Your task to perform on an android device: Open eBay Image 0: 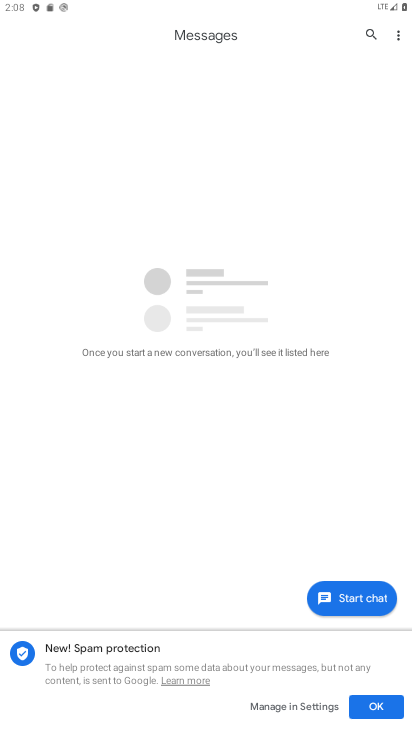
Step 0: press home button
Your task to perform on an android device: Open eBay Image 1: 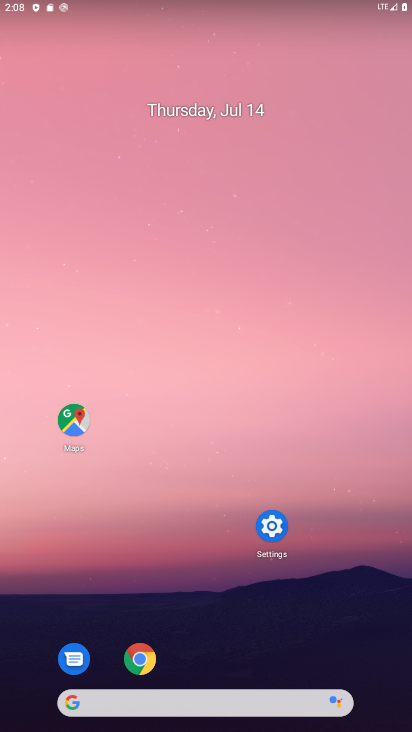
Step 1: click (147, 659)
Your task to perform on an android device: Open eBay Image 2: 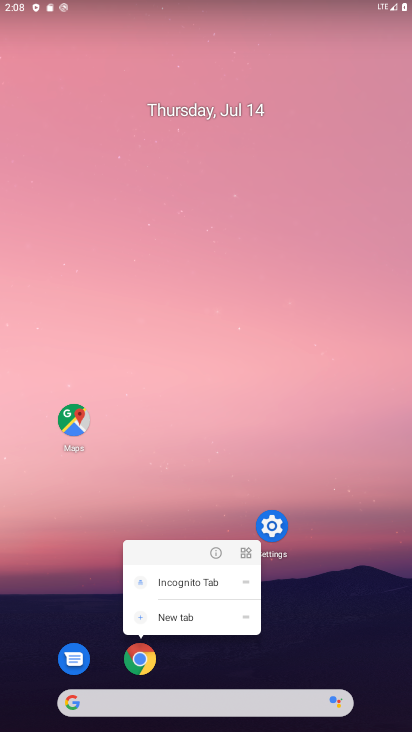
Step 2: click (142, 659)
Your task to perform on an android device: Open eBay Image 3: 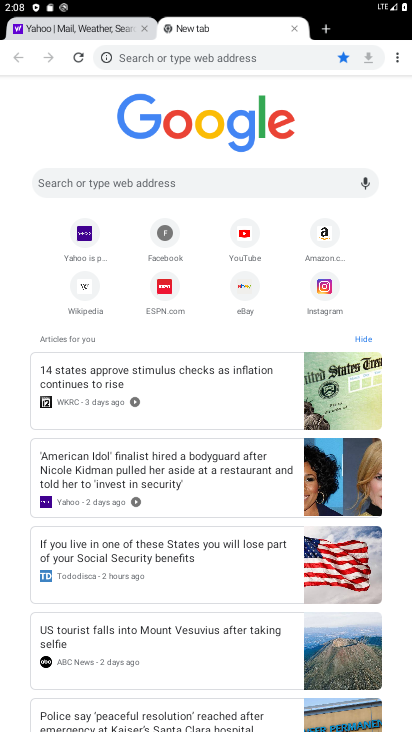
Step 3: click (244, 296)
Your task to perform on an android device: Open eBay Image 4: 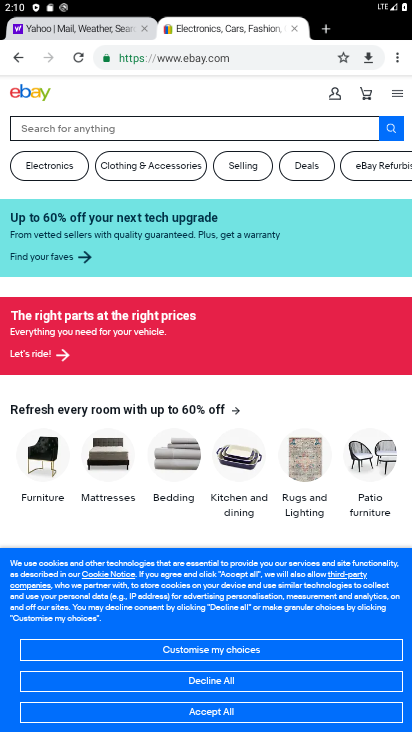
Step 4: task complete